Your task to perform on an android device: snooze an email in the gmail app Image 0: 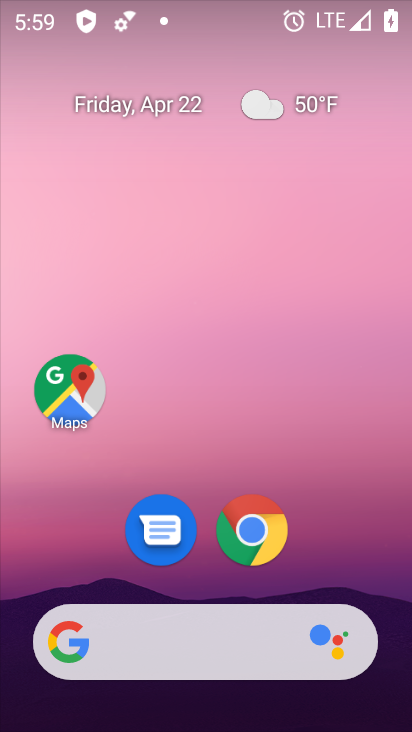
Step 0: drag from (396, 584) to (318, 40)
Your task to perform on an android device: snooze an email in the gmail app Image 1: 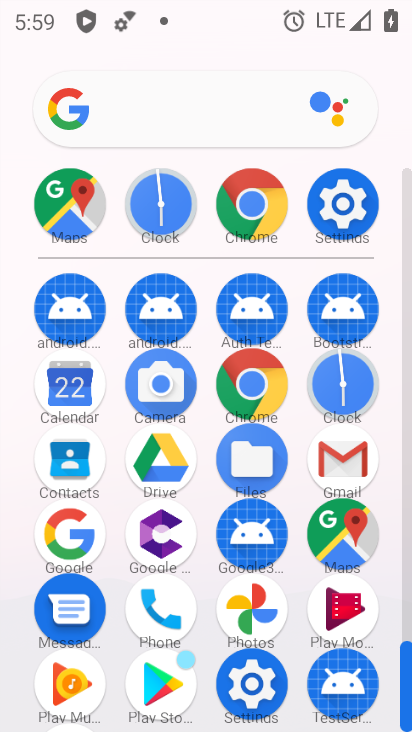
Step 1: click (339, 463)
Your task to perform on an android device: snooze an email in the gmail app Image 2: 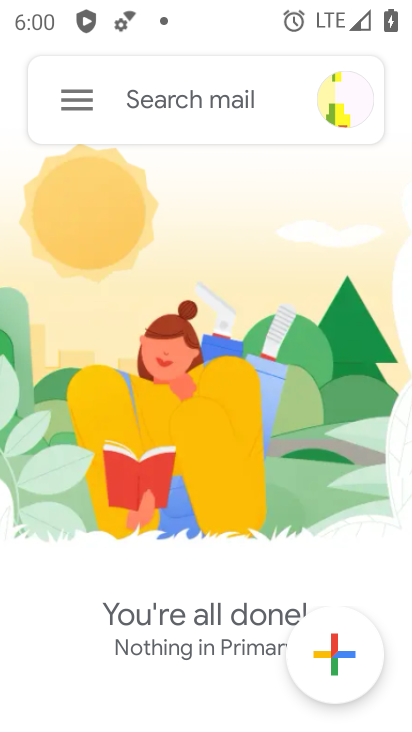
Step 2: click (93, 97)
Your task to perform on an android device: snooze an email in the gmail app Image 3: 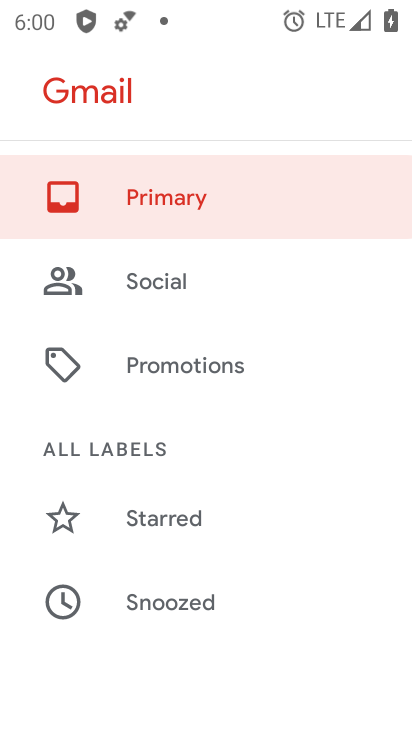
Step 3: task complete